Your task to perform on an android device: Go to internet settings Image 0: 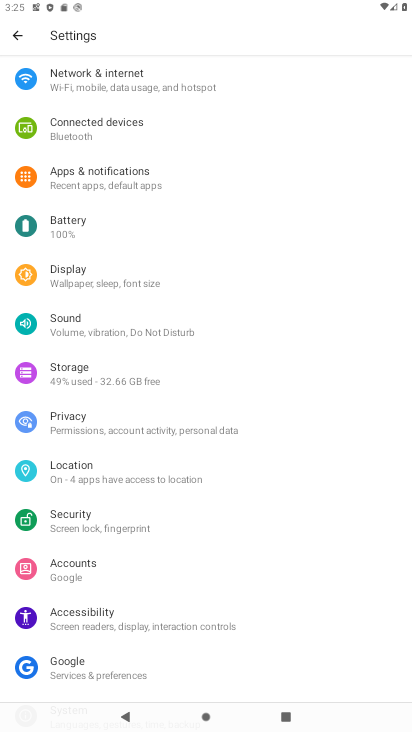
Step 0: click (157, 84)
Your task to perform on an android device: Go to internet settings Image 1: 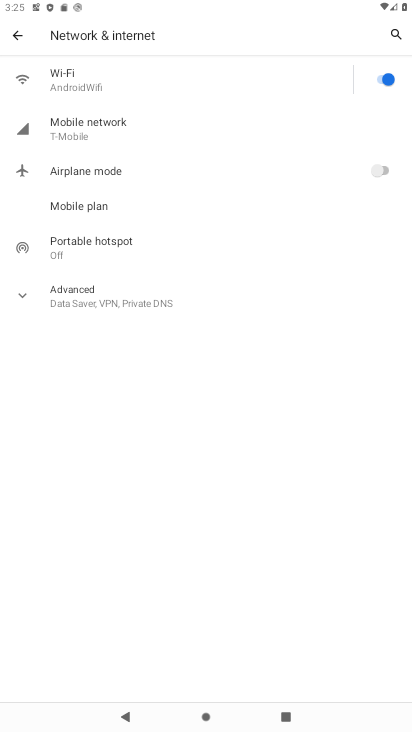
Step 1: click (65, 296)
Your task to perform on an android device: Go to internet settings Image 2: 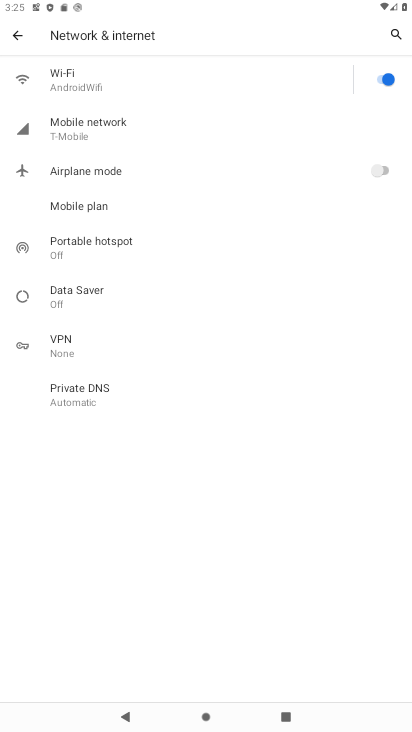
Step 2: task complete